Your task to perform on an android device: Open Maps and search for coffee Image 0: 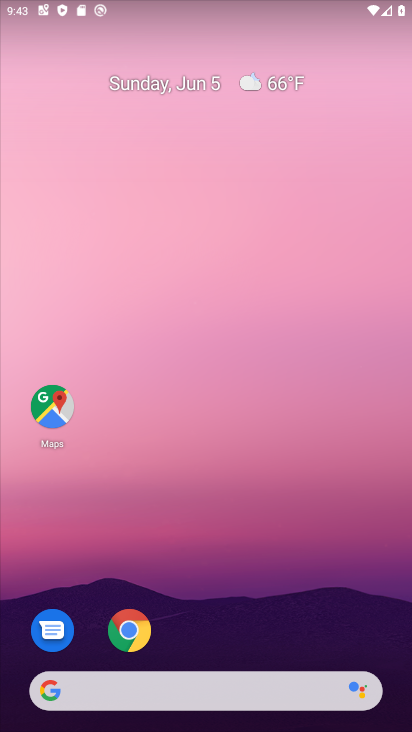
Step 0: drag from (192, 722) to (194, 2)
Your task to perform on an android device: Open Maps and search for coffee Image 1: 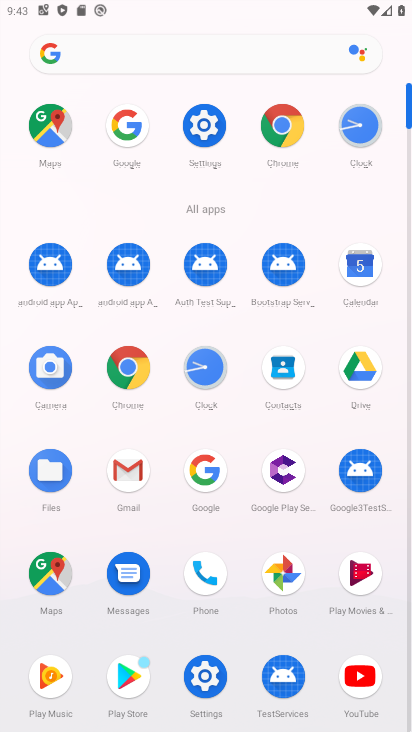
Step 1: click (48, 576)
Your task to perform on an android device: Open Maps and search for coffee Image 2: 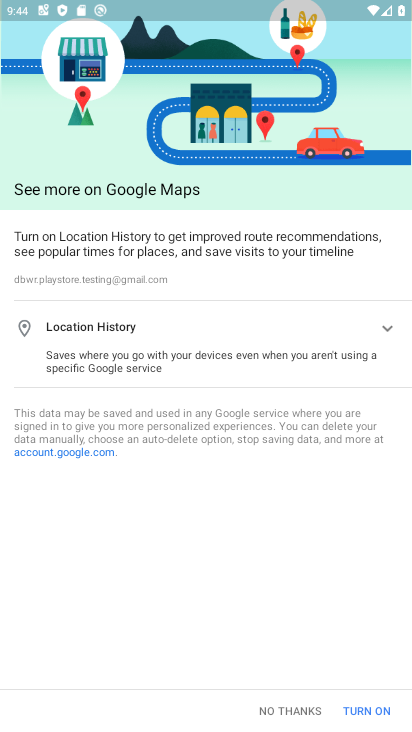
Step 2: click (298, 710)
Your task to perform on an android device: Open Maps and search for coffee Image 3: 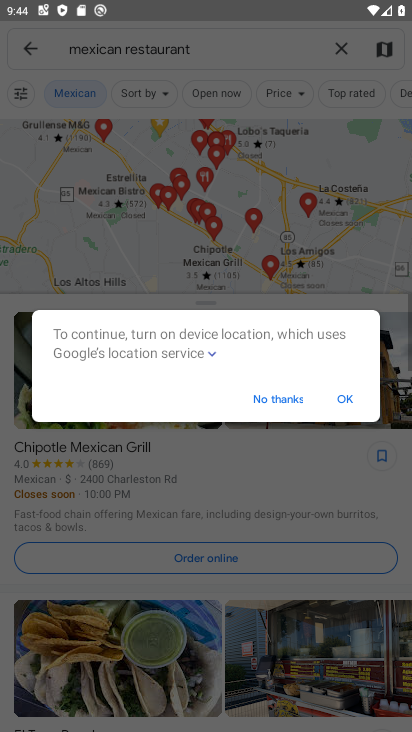
Step 3: click (283, 400)
Your task to perform on an android device: Open Maps and search for coffee Image 4: 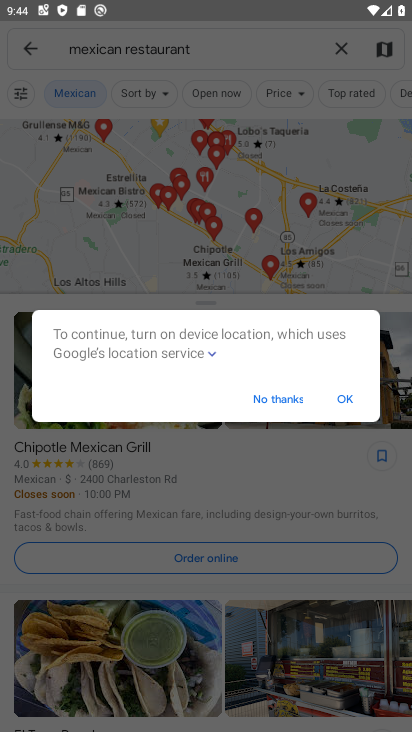
Step 4: click (285, 401)
Your task to perform on an android device: Open Maps and search for coffee Image 5: 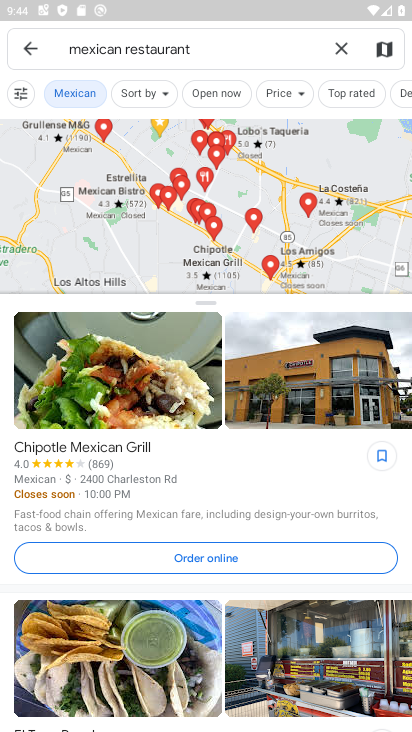
Step 5: click (254, 46)
Your task to perform on an android device: Open Maps and search for coffee Image 6: 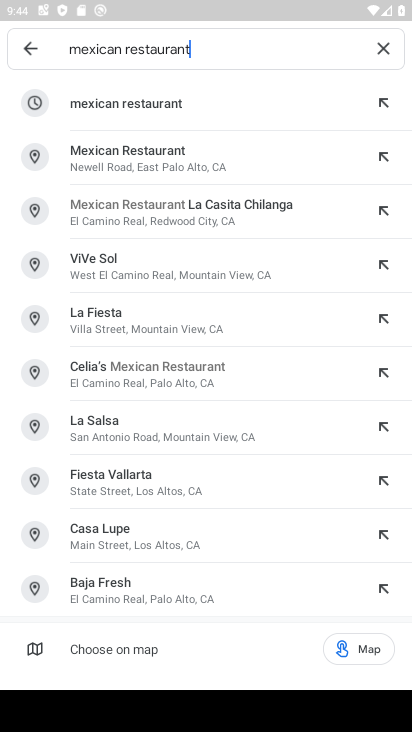
Step 6: click (386, 46)
Your task to perform on an android device: Open Maps and search for coffee Image 7: 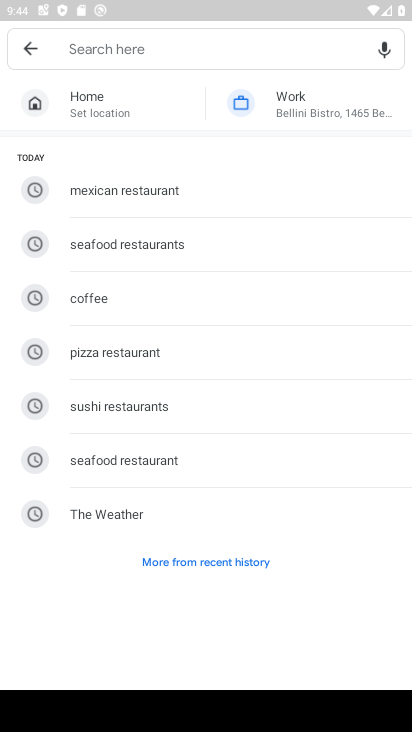
Step 7: type "coffee"
Your task to perform on an android device: Open Maps and search for coffee Image 8: 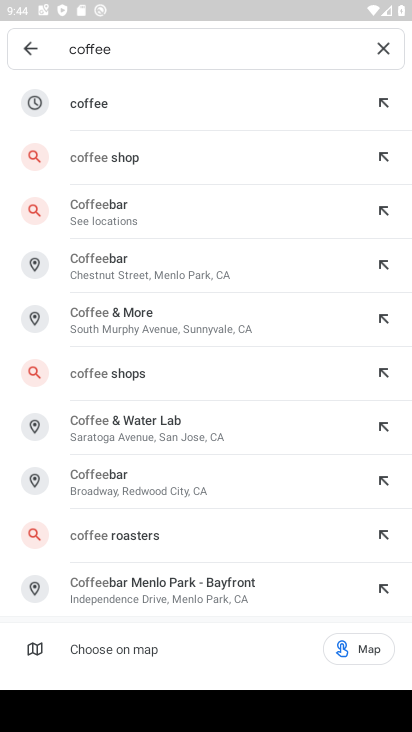
Step 8: click (104, 106)
Your task to perform on an android device: Open Maps and search for coffee Image 9: 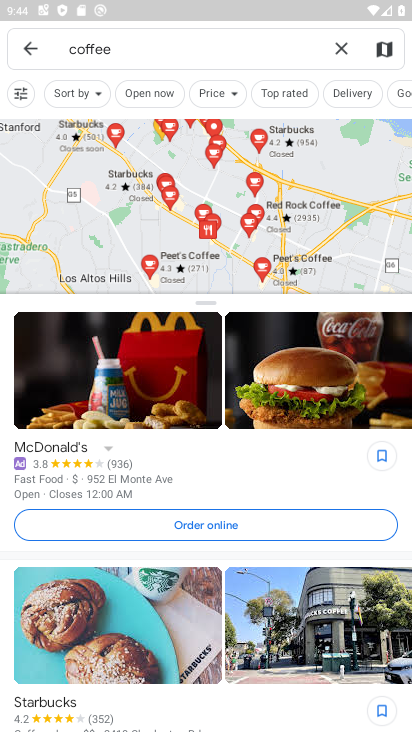
Step 9: task complete